Your task to perform on an android device: What's the weather? Image 0: 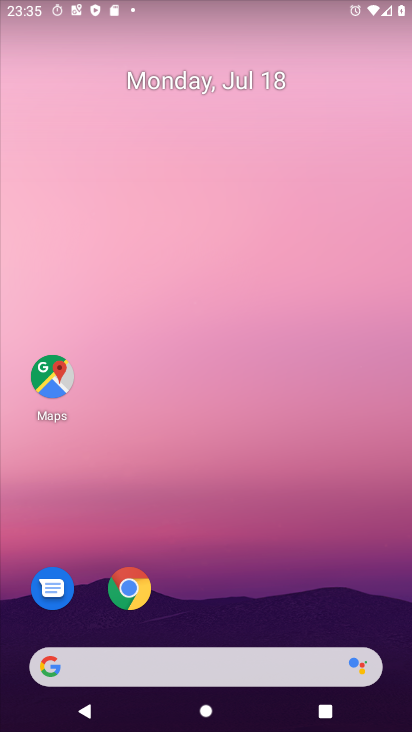
Step 0: press home button
Your task to perform on an android device: What's the weather? Image 1: 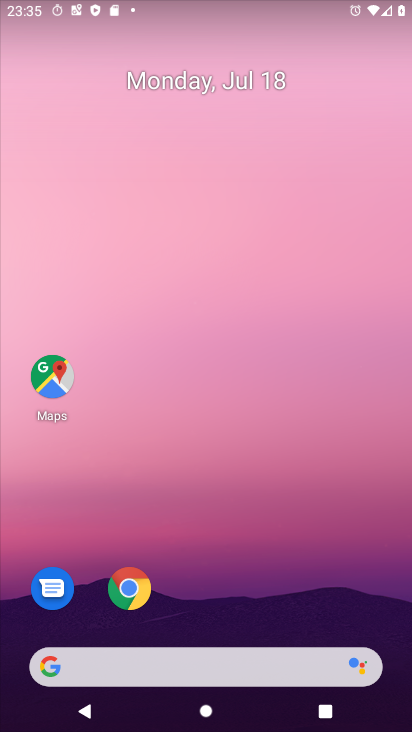
Step 1: click (142, 669)
Your task to perform on an android device: What's the weather? Image 2: 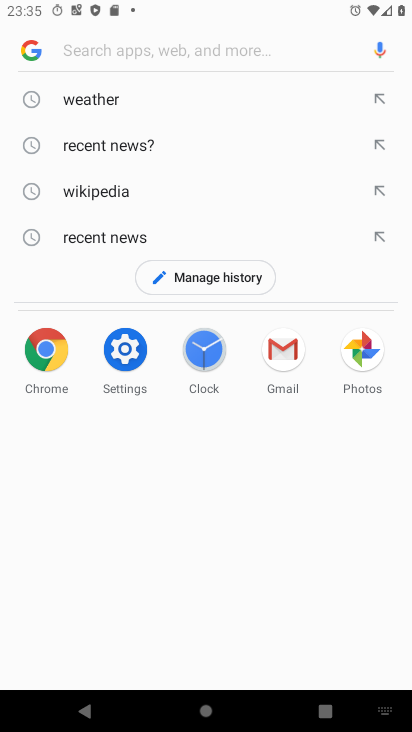
Step 2: click (102, 102)
Your task to perform on an android device: What's the weather? Image 3: 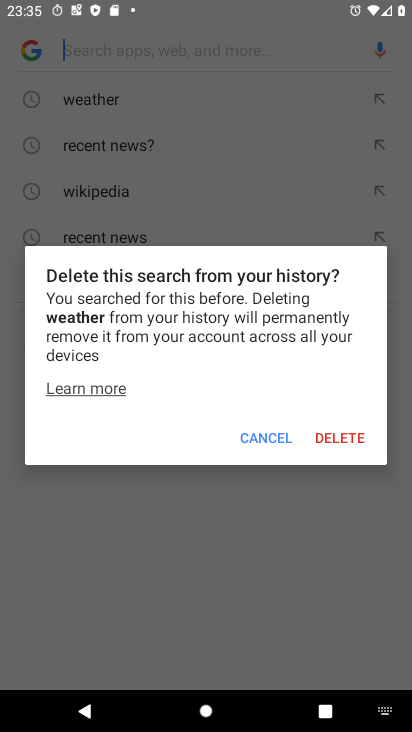
Step 3: click (271, 442)
Your task to perform on an android device: What's the weather? Image 4: 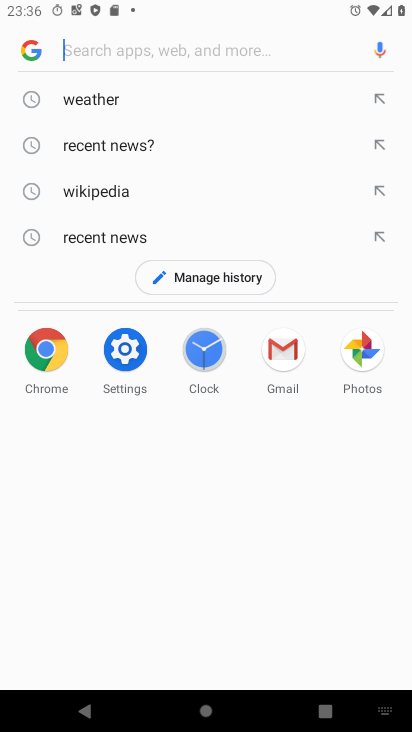
Step 4: click (108, 97)
Your task to perform on an android device: What's the weather? Image 5: 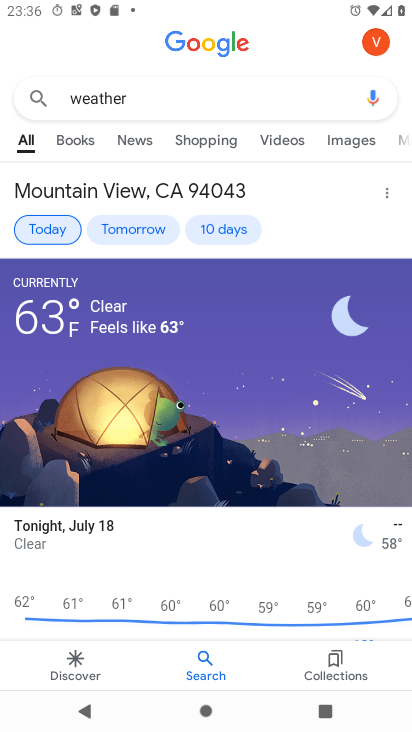
Step 5: task complete